Your task to perform on an android device: turn off notifications in google photos Image 0: 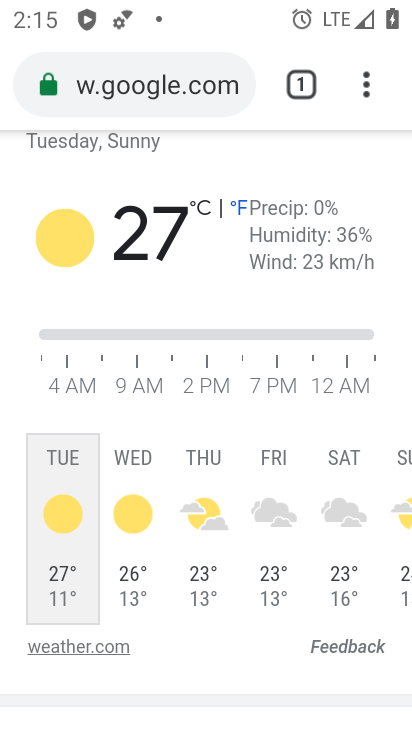
Step 0: press home button
Your task to perform on an android device: turn off notifications in google photos Image 1: 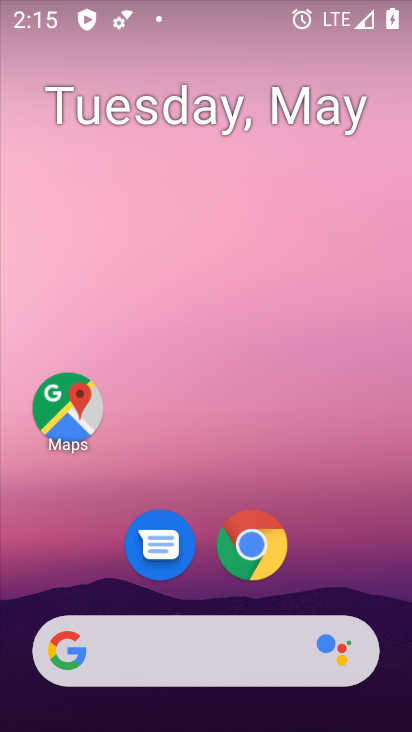
Step 1: drag from (339, 564) to (237, 46)
Your task to perform on an android device: turn off notifications in google photos Image 2: 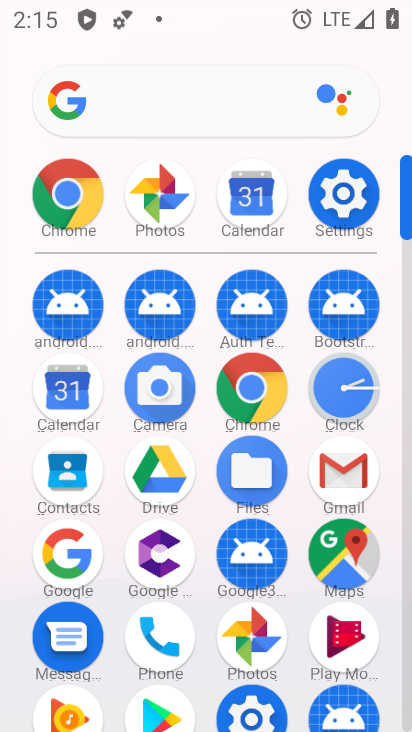
Step 2: click (158, 190)
Your task to perform on an android device: turn off notifications in google photos Image 3: 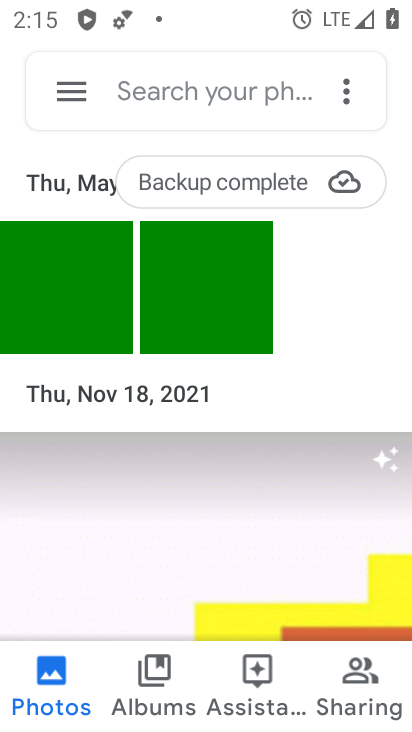
Step 3: click (64, 88)
Your task to perform on an android device: turn off notifications in google photos Image 4: 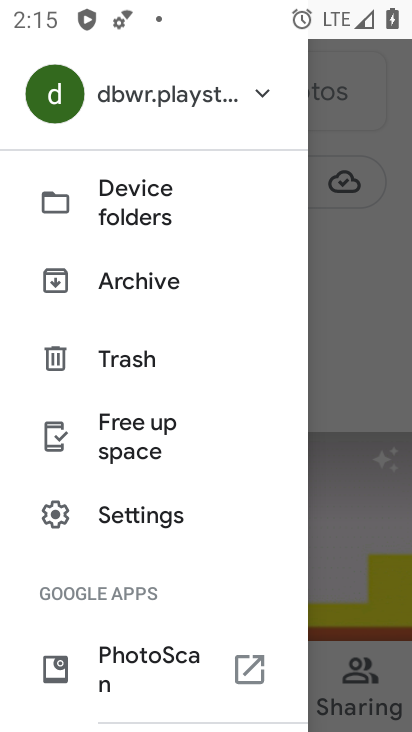
Step 4: click (131, 506)
Your task to perform on an android device: turn off notifications in google photos Image 5: 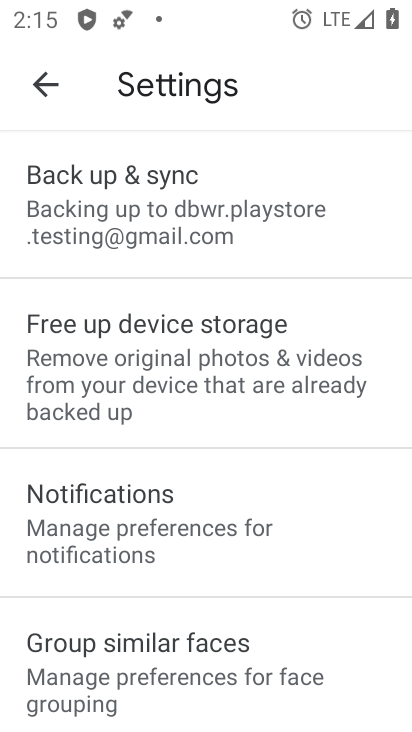
Step 5: click (181, 516)
Your task to perform on an android device: turn off notifications in google photos Image 6: 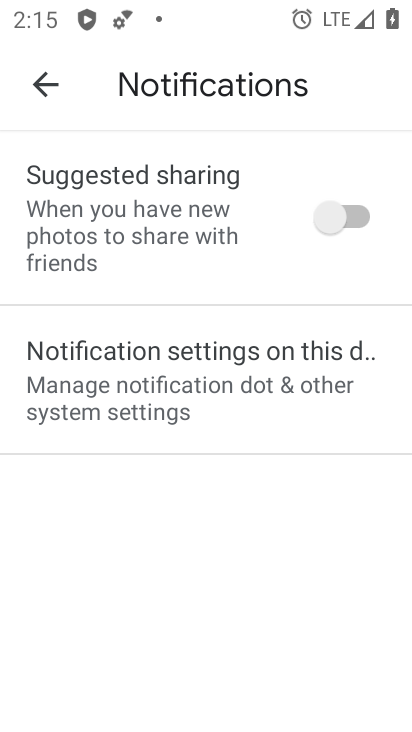
Step 6: click (245, 379)
Your task to perform on an android device: turn off notifications in google photos Image 7: 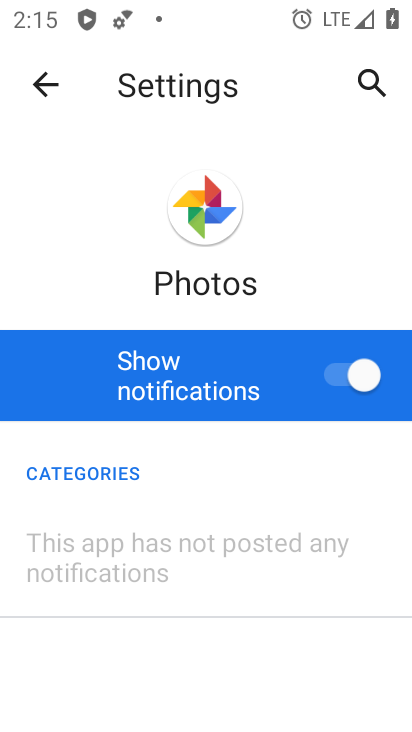
Step 7: click (325, 372)
Your task to perform on an android device: turn off notifications in google photos Image 8: 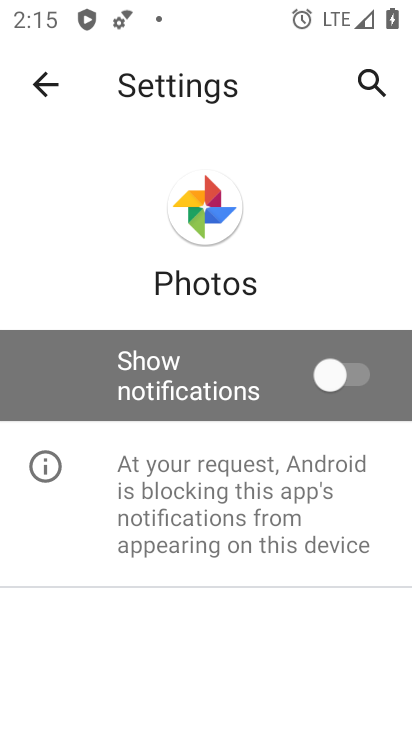
Step 8: task complete